Your task to perform on an android device: Open Chrome and go to the settings page Image 0: 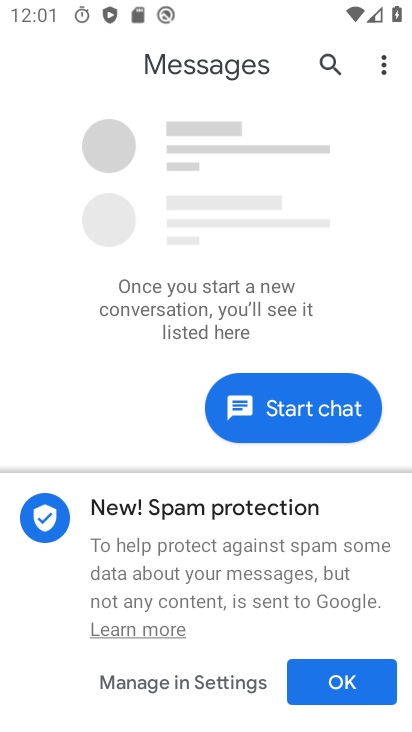
Step 0: press home button
Your task to perform on an android device: Open Chrome and go to the settings page Image 1: 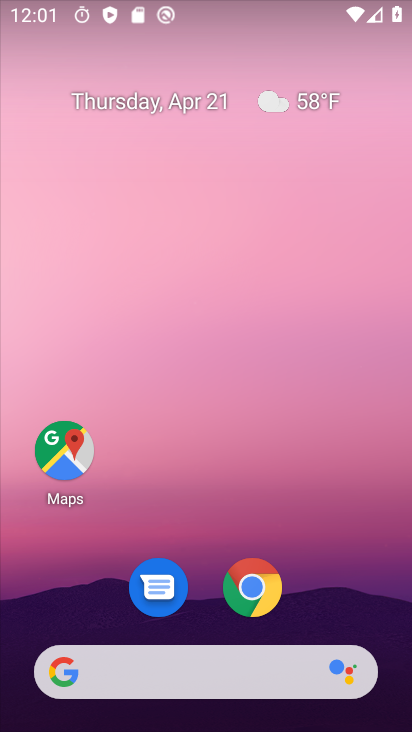
Step 1: click (253, 611)
Your task to perform on an android device: Open Chrome and go to the settings page Image 2: 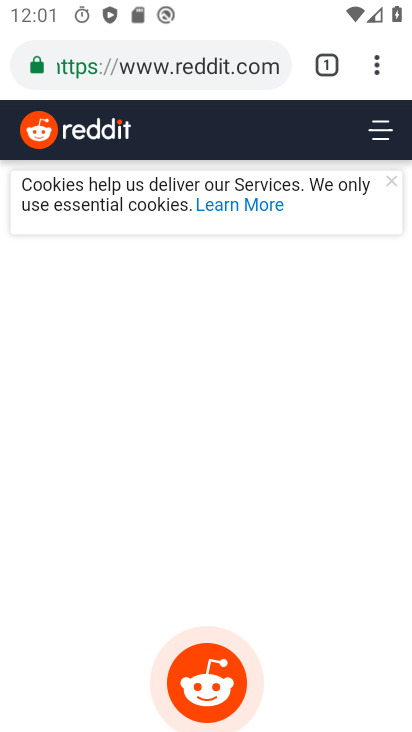
Step 2: click (376, 78)
Your task to perform on an android device: Open Chrome and go to the settings page Image 3: 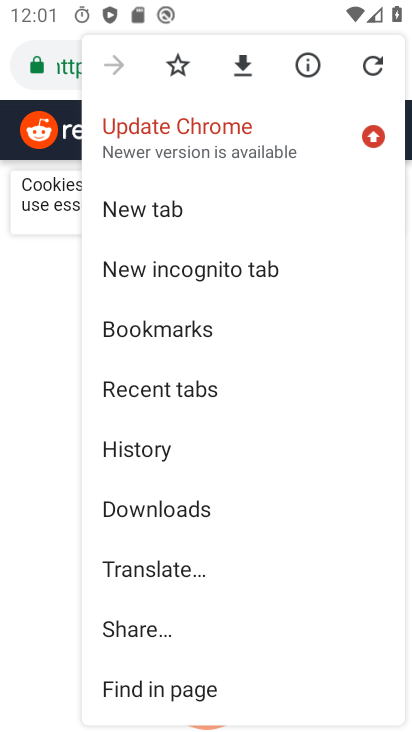
Step 3: drag from (139, 552) to (224, 151)
Your task to perform on an android device: Open Chrome and go to the settings page Image 4: 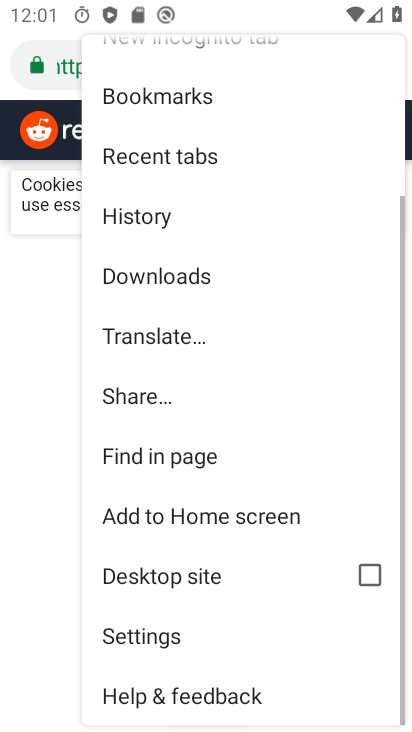
Step 4: click (157, 642)
Your task to perform on an android device: Open Chrome and go to the settings page Image 5: 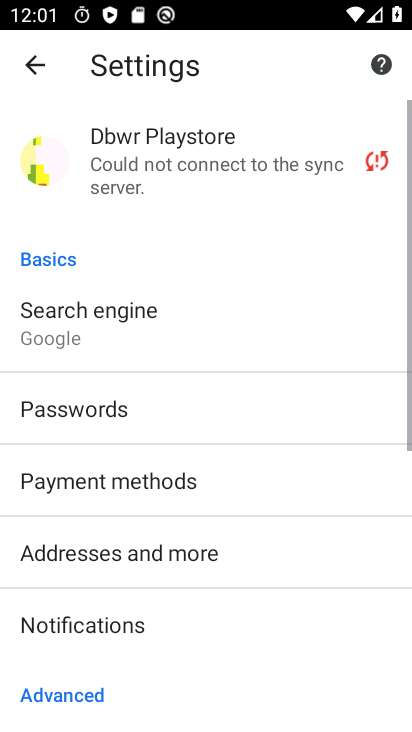
Step 5: task complete